Your task to perform on an android device: turn on sleep mode Image 0: 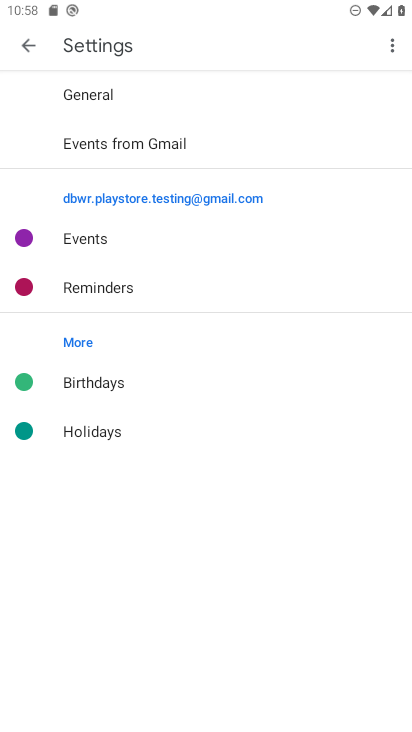
Step 0: press home button
Your task to perform on an android device: turn on sleep mode Image 1: 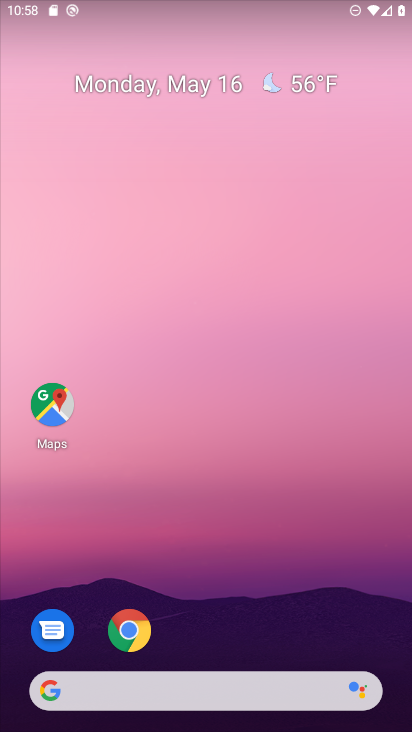
Step 1: drag from (228, 561) to (211, 36)
Your task to perform on an android device: turn on sleep mode Image 2: 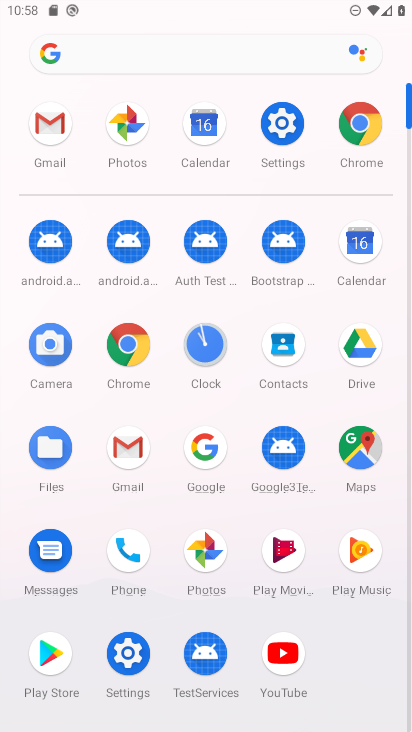
Step 2: click (282, 132)
Your task to perform on an android device: turn on sleep mode Image 3: 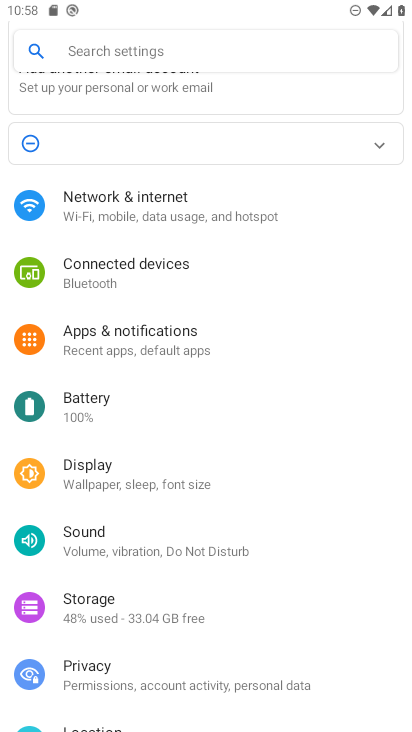
Step 3: click (177, 471)
Your task to perform on an android device: turn on sleep mode Image 4: 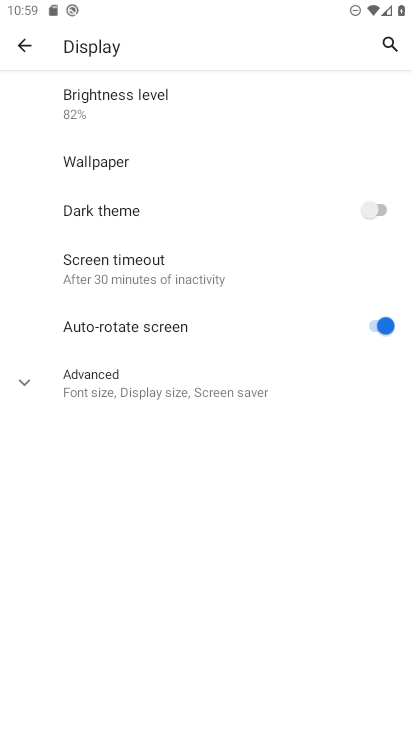
Step 4: click (25, 372)
Your task to perform on an android device: turn on sleep mode Image 5: 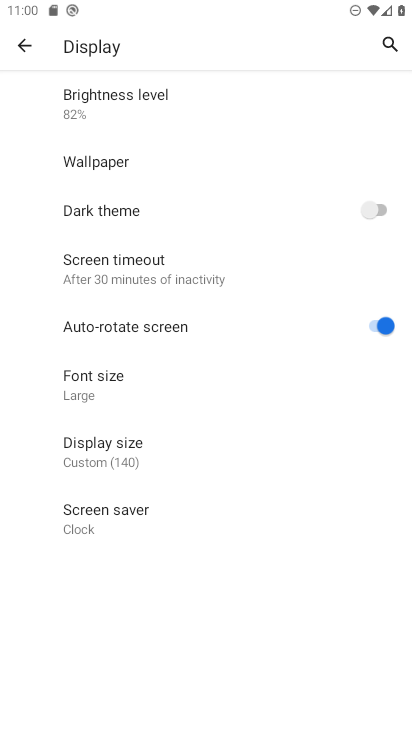
Step 5: task complete